Your task to perform on an android device: delete the emails in spam in the gmail app Image 0: 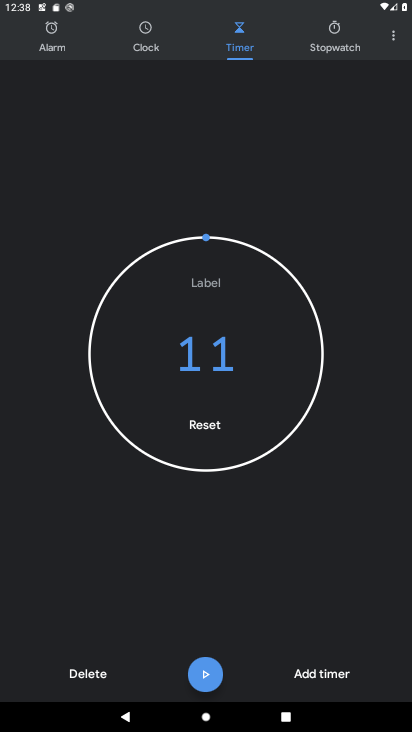
Step 0: press home button
Your task to perform on an android device: delete the emails in spam in the gmail app Image 1: 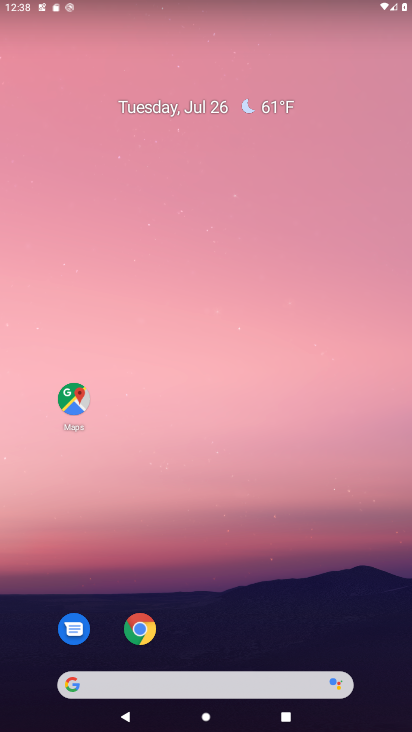
Step 1: drag from (209, 633) to (161, 196)
Your task to perform on an android device: delete the emails in spam in the gmail app Image 2: 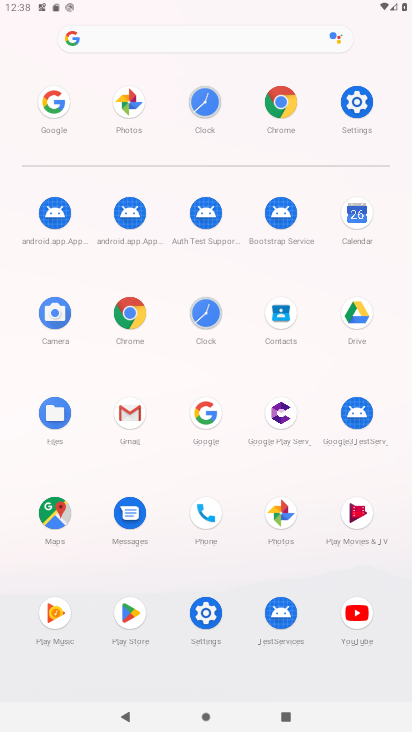
Step 2: click (143, 413)
Your task to perform on an android device: delete the emails in spam in the gmail app Image 3: 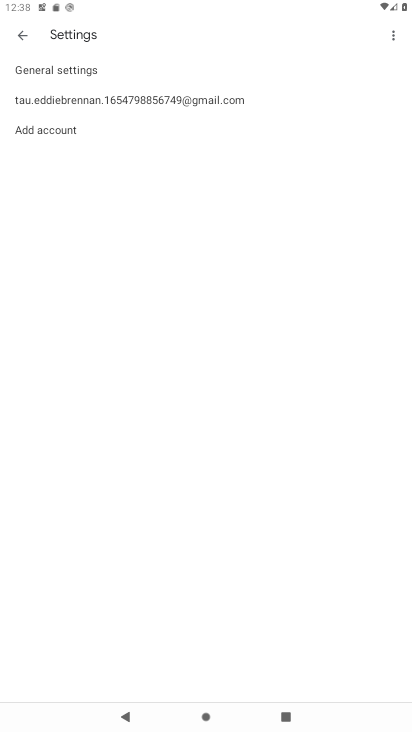
Step 3: click (36, 45)
Your task to perform on an android device: delete the emails in spam in the gmail app Image 4: 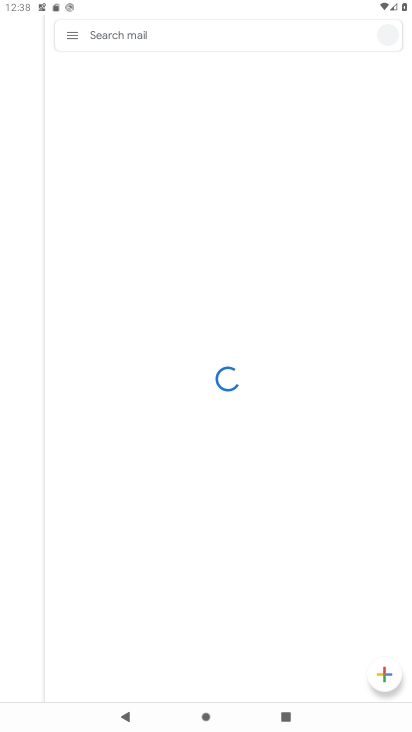
Step 4: click (69, 40)
Your task to perform on an android device: delete the emails in spam in the gmail app Image 5: 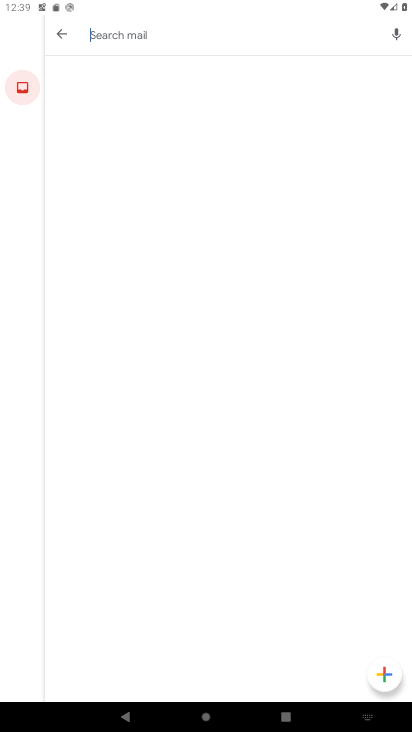
Step 5: click (54, 43)
Your task to perform on an android device: delete the emails in spam in the gmail app Image 6: 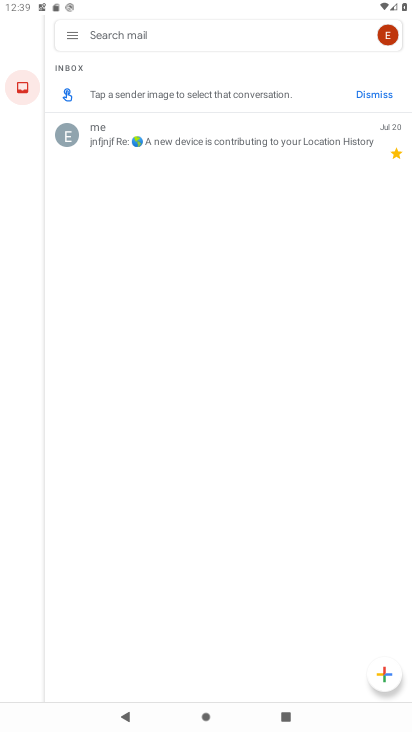
Step 6: click (64, 39)
Your task to perform on an android device: delete the emails in spam in the gmail app Image 7: 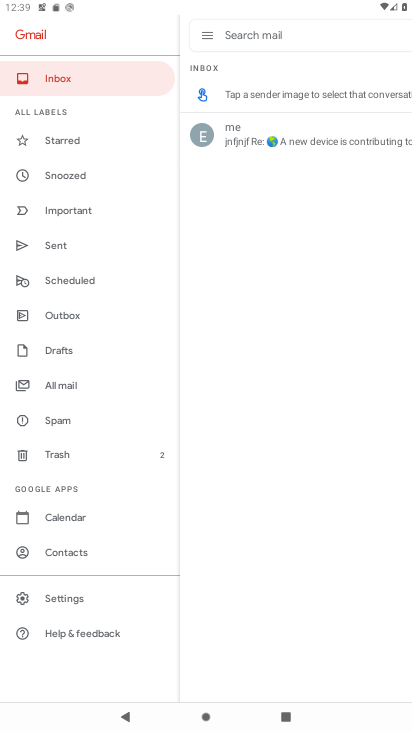
Step 7: click (61, 425)
Your task to perform on an android device: delete the emails in spam in the gmail app Image 8: 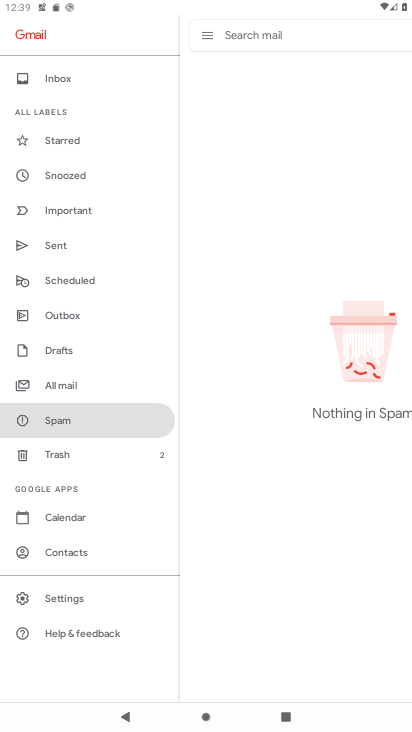
Step 8: task complete